Your task to perform on an android device: turn off wifi Image 0: 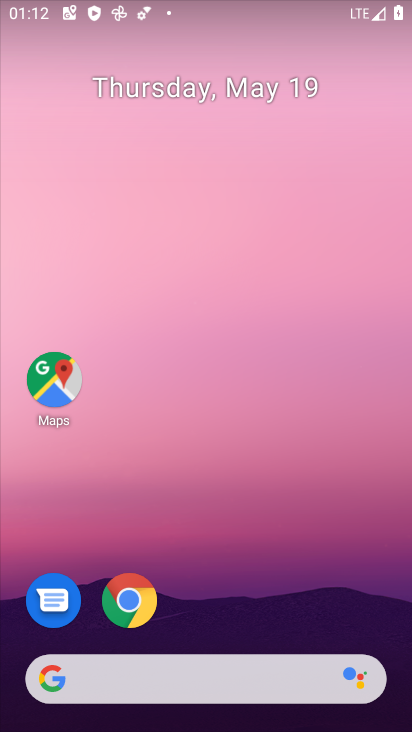
Step 0: drag from (212, 539) to (226, 136)
Your task to perform on an android device: turn off wifi Image 1: 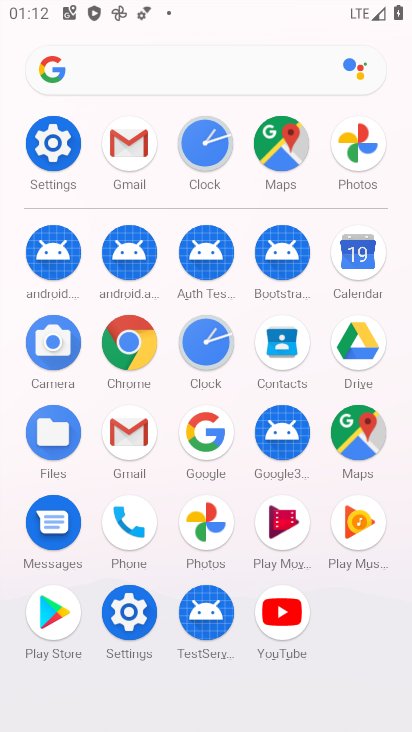
Step 1: click (58, 140)
Your task to perform on an android device: turn off wifi Image 2: 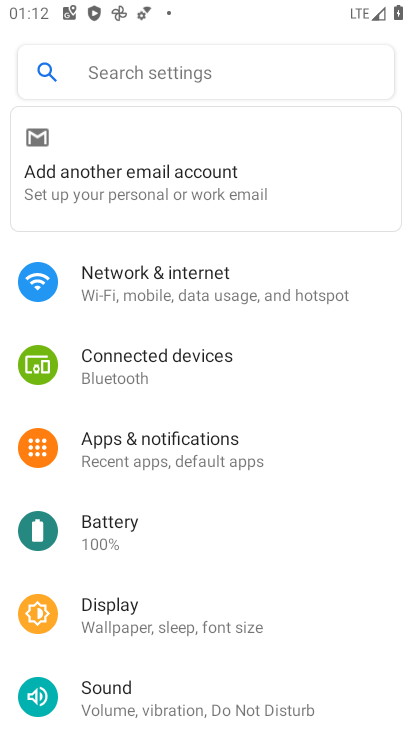
Step 2: click (174, 267)
Your task to perform on an android device: turn off wifi Image 3: 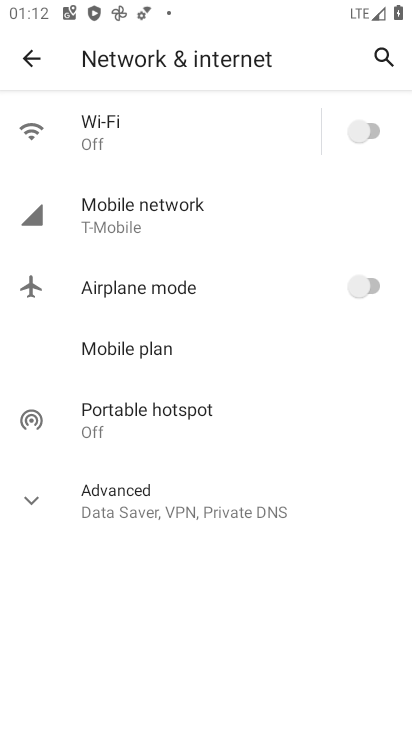
Step 3: task complete